Your task to perform on an android device: Show me popular videos on Youtube Image 0: 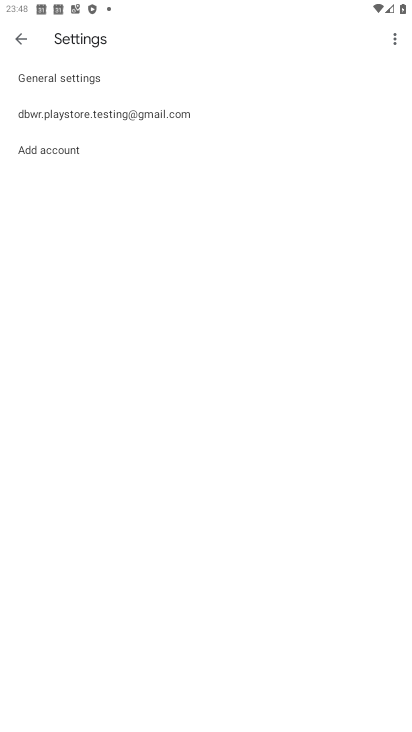
Step 0: press back button
Your task to perform on an android device: Show me popular videos on Youtube Image 1: 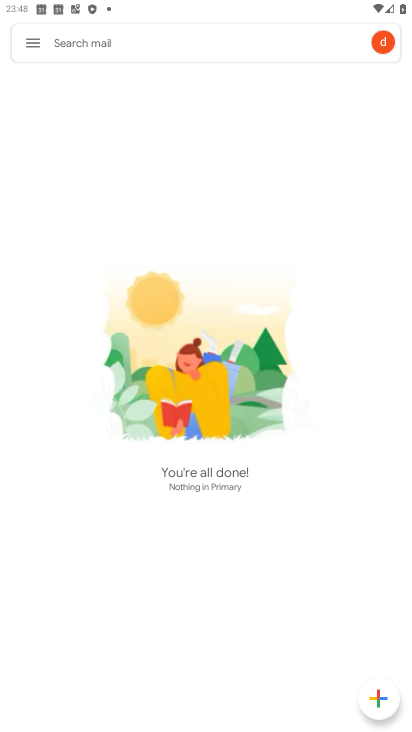
Step 1: press back button
Your task to perform on an android device: Show me popular videos on Youtube Image 2: 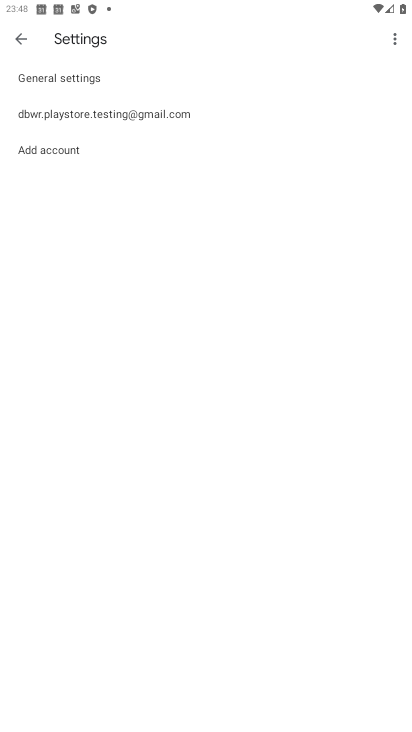
Step 2: press back button
Your task to perform on an android device: Show me popular videos on Youtube Image 3: 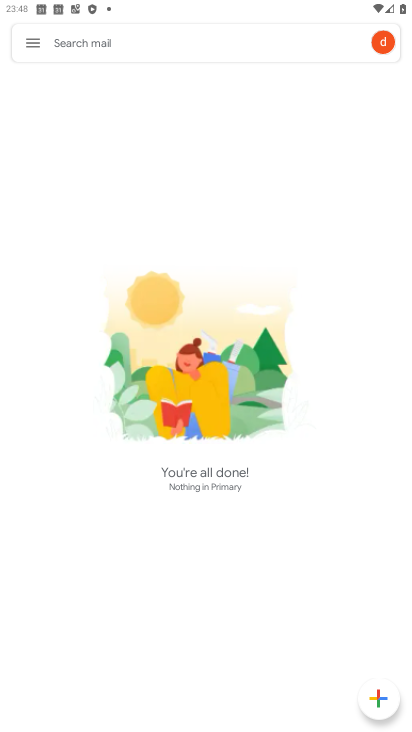
Step 3: press back button
Your task to perform on an android device: Show me popular videos on Youtube Image 4: 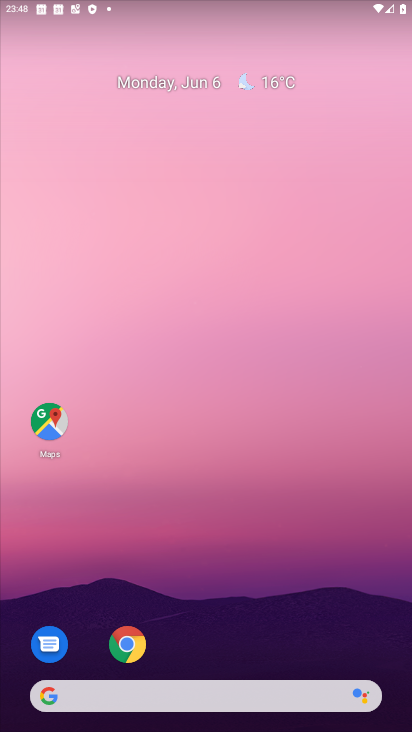
Step 4: drag from (242, 641) to (226, 42)
Your task to perform on an android device: Show me popular videos on Youtube Image 5: 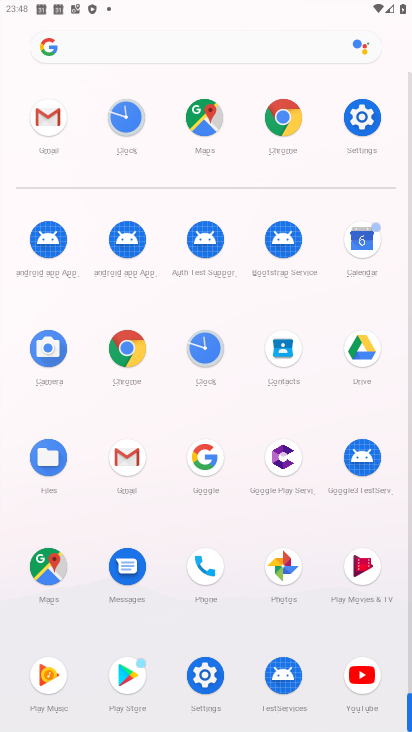
Step 5: click (362, 671)
Your task to perform on an android device: Show me popular videos on Youtube Image 6: 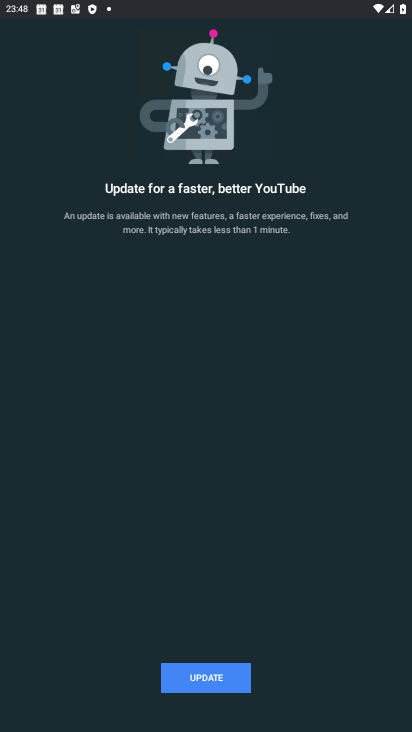
Step 6: click (216, 675)
Your task to perform on an android device: Show me popular videos on Youtube Image 7: 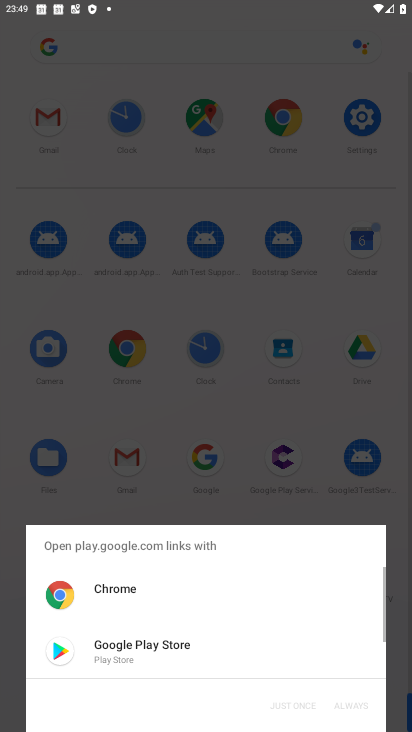
Step 7: click (150, 652)
Your task to perform on an android device: Show me popular videos on Youtube Image 8: 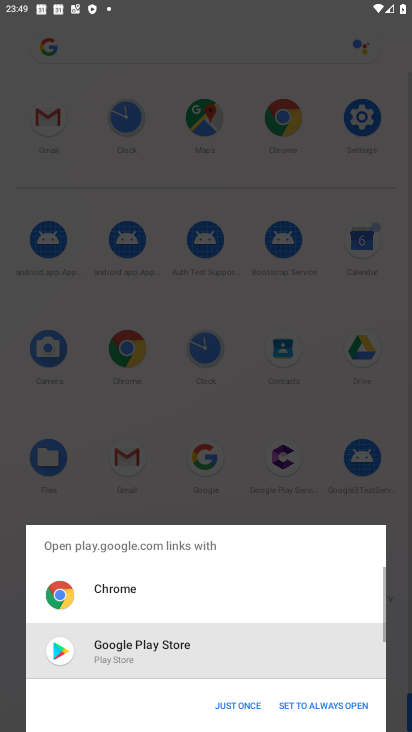
Step 8: click (238, 699)
Your task to perform on an android device: Show me popular videos on Youtube Image 9: 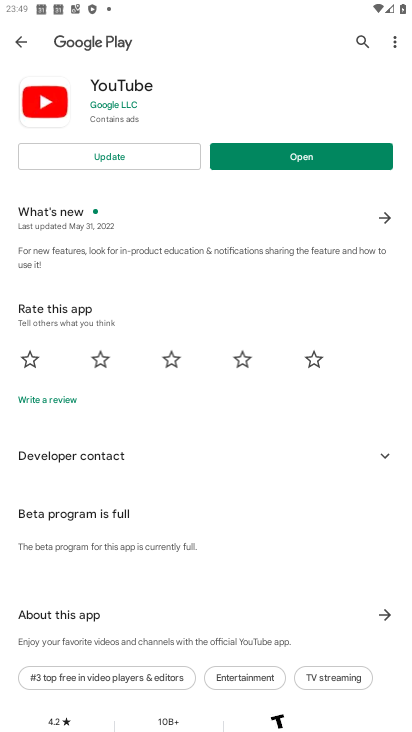
Step 9: click (174, 159)
Your task to perform on an android device: Show me popular videos on Youtube Image 10: 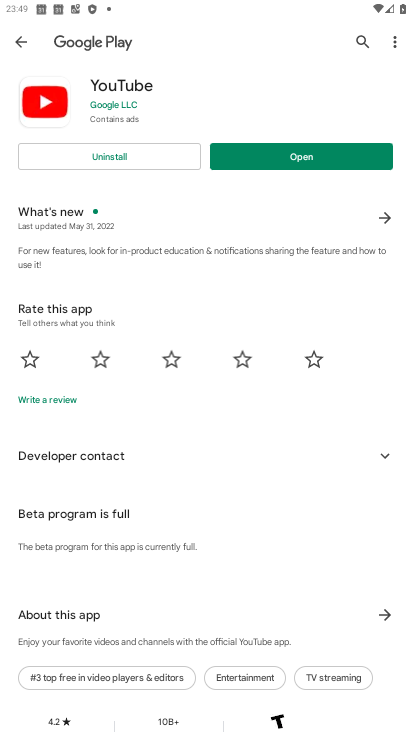
Step 10: click (271, 164)
Your task to perform on an android device: Show me popular videos on Youtube Image 11: 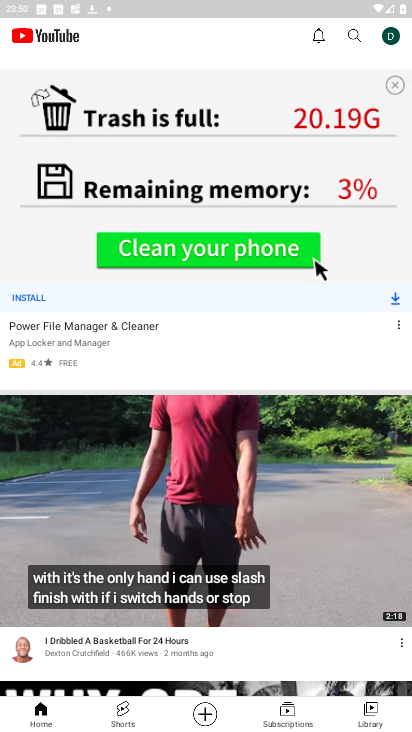
Step 11: drag from (90, 205) to (130, 589)
Your task to perform on an android device: Show me popular videos on Youtube Image 12: 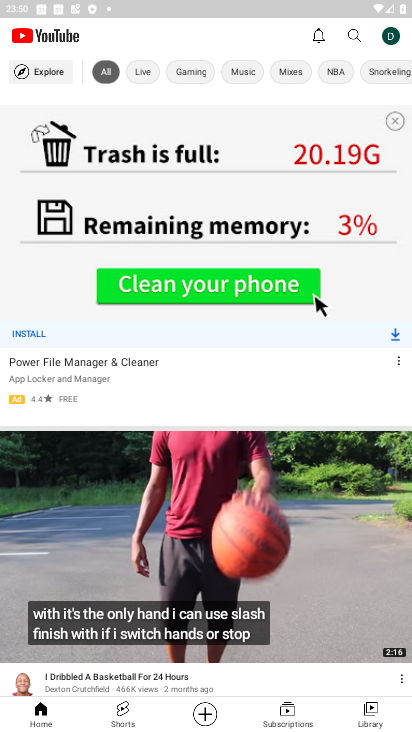
Step 12: click (56, 72)
Your task to perform on an android device: Show me popular videos on Youtube Image 13: 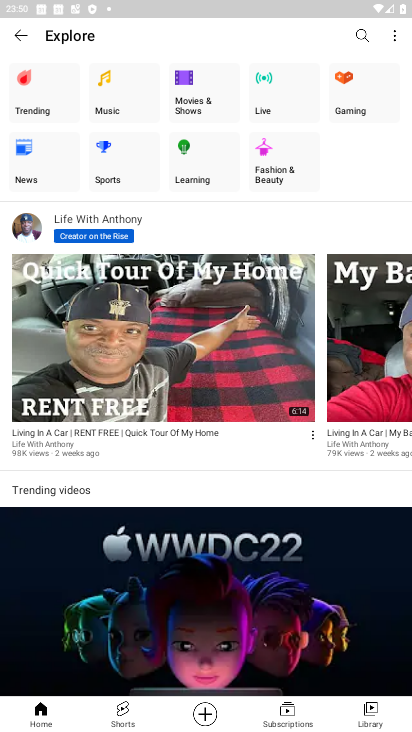
Step 13: task complete